Your task to perform on an android device: When is my next meeting? Image 0: 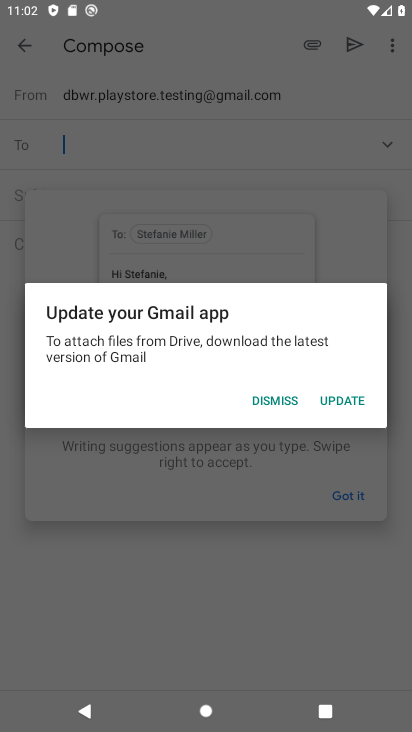
Step 0: press home button
Your task to perform on an android device: When is my next meeting? Image 1: 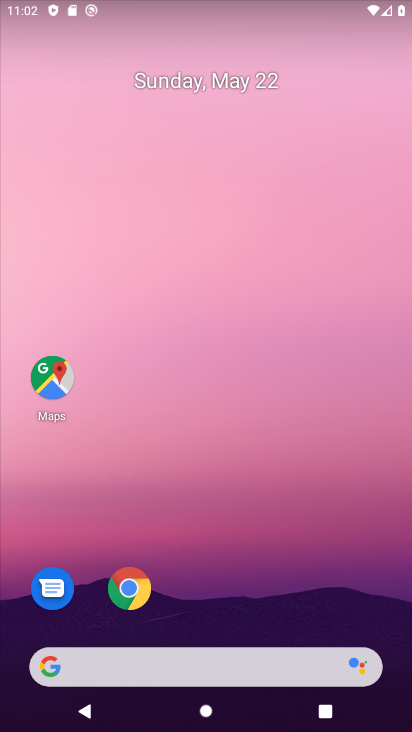
Step 1: drag from (201, 633) to (145, 45)
Your task to perform on an android device: When is my next meeting? Image 2: 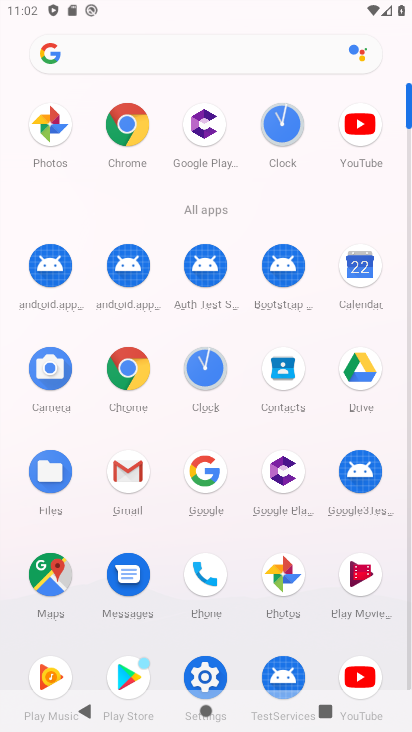
Step 2: click (363, 261)
Your task to perform on an android device: When is my next meeting? Image 3: 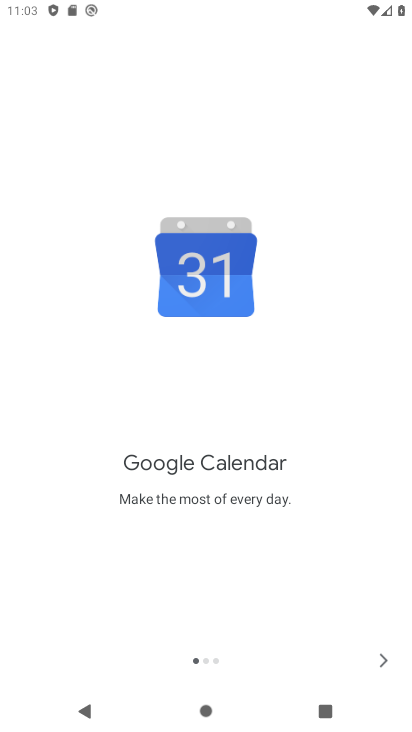
Step 3: click (386, 647)
Your task to perform on an android device: When is my next meeting? Image 4: 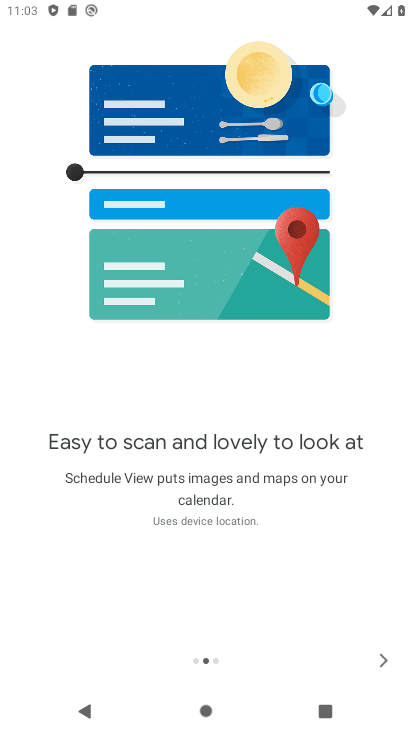
Step 4: click (386, 647)
Your task to perform on an android device: When is my next meeting? Image 5: 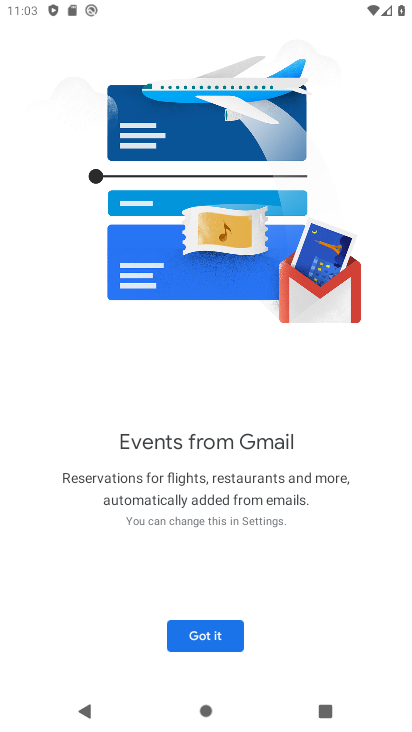
Step 5: click (211, 639)
Your task to perform on an android device: When is my next meeting? Image 6: 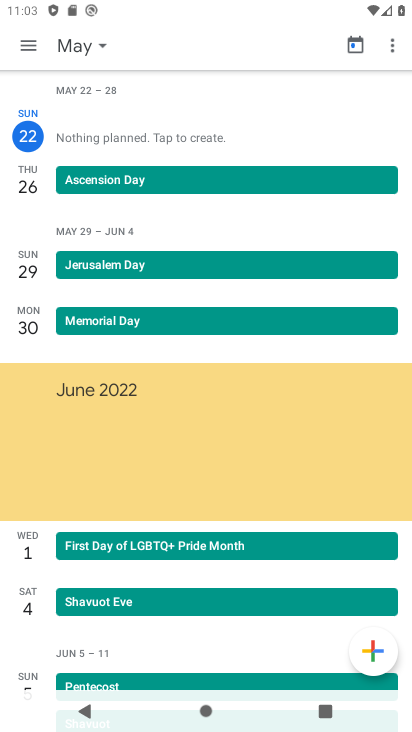
Step 6: click (26, 40)
Your task to perform on an android device: When is my next meeting? Image 7: 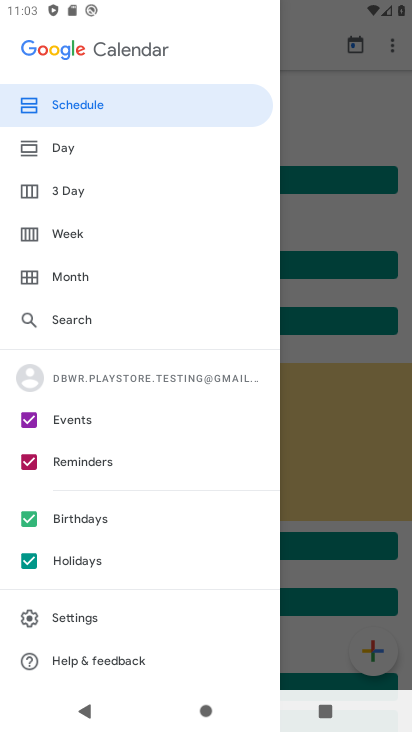
Step 7: click (93, 215)
Your task to perform on an android device: When is my next meeting? Image 8: 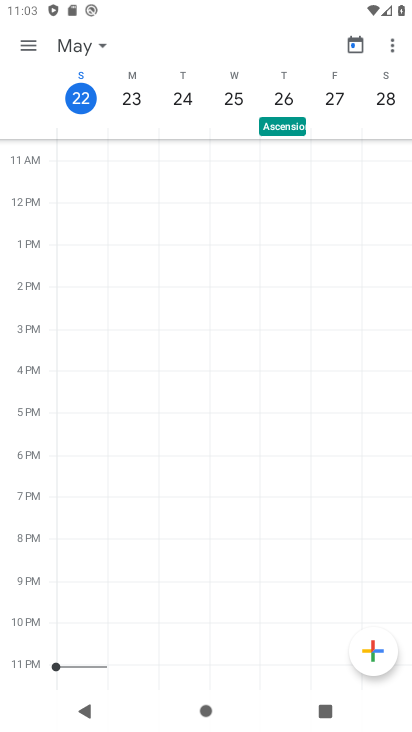
Step 8: click (29, 46)
Your task to perform on an android device: When is my next meeting? Image 9: 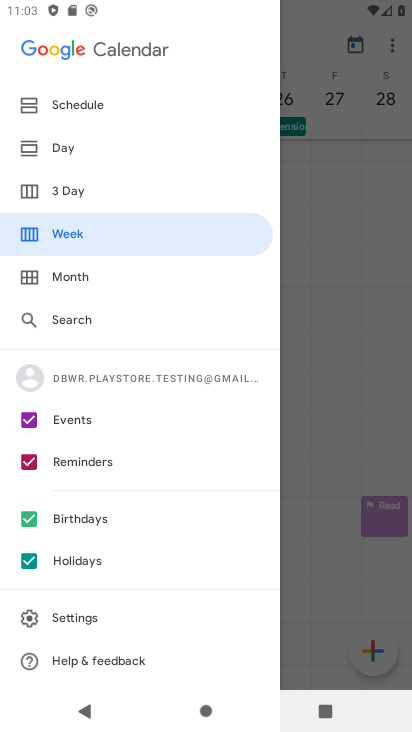
Step 9: click (71, 613)
Your task to perform on an android device: When is my next meeting? Image 10: 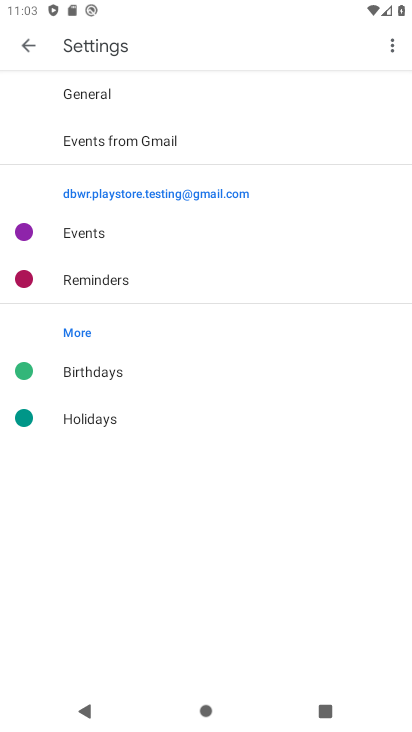
Step 10: click (120, 267)
Your task to perform on an android device: When is my next meeting? Image 11: 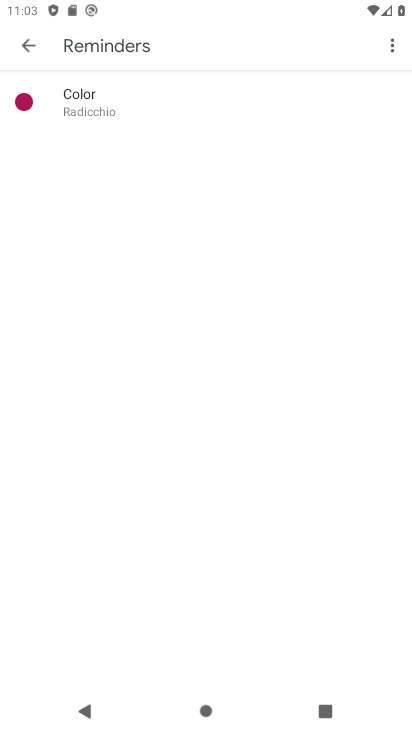
Step 11: click (30, 44)
Your task to perform on an android device: When is my next meeting? Image 12: 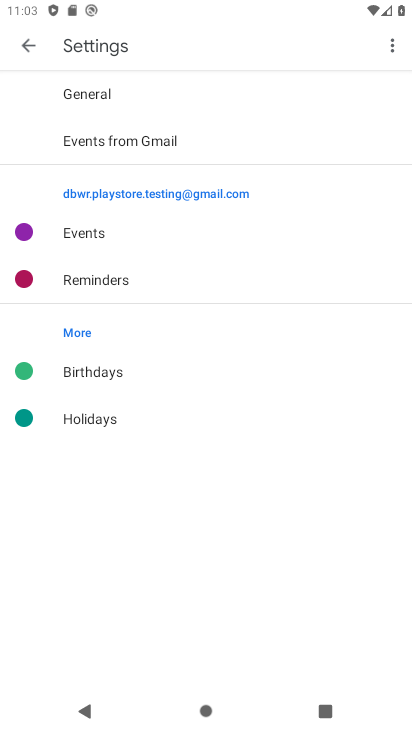
Step 12: click (71, 327)
Your task to perform on an android device: When is my next meeting? Image 13: 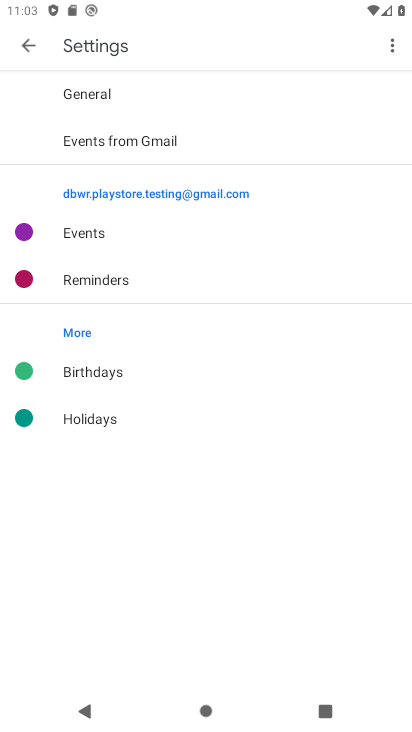
Step 13: click (76, 331)
Your task to perform on an android device: When is my next meeting? Image 14: 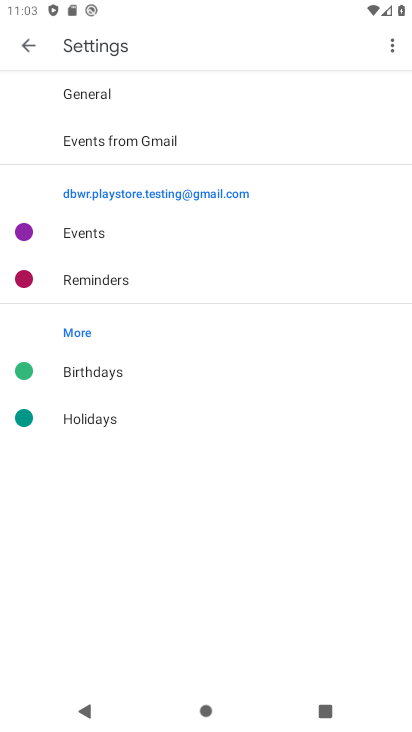
Step 14: click (34, 38)
Your task to perform on an android device: When is my next meeting? Image 15: 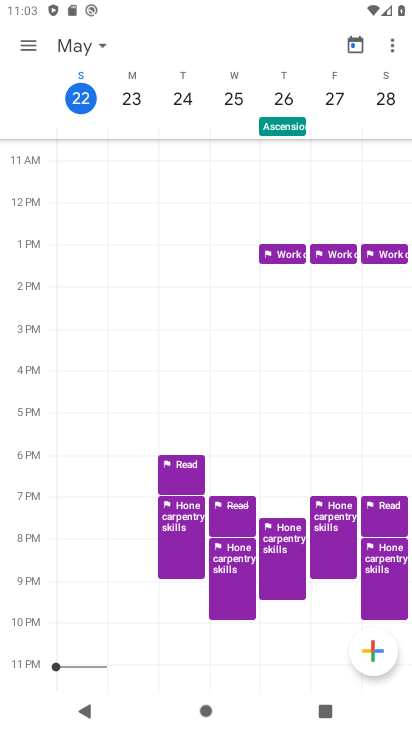
Step 15: click (34, 38)
Your task to perform on an android device: When is my next meeting? Image 16: 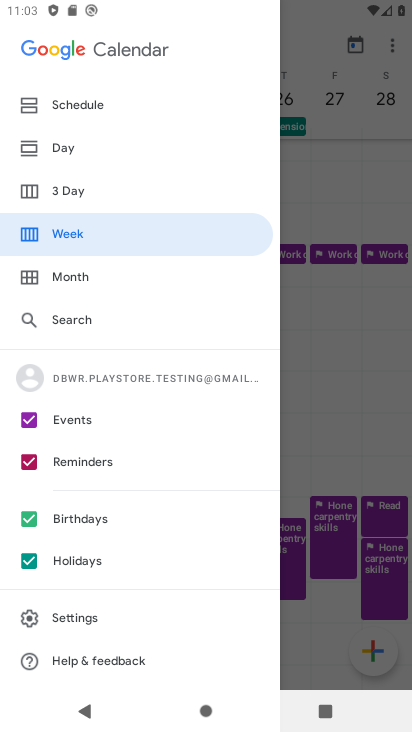
Step 16: task complete